Your task to perform on an android device: Clear the shopping cart on newegg. Image 0: 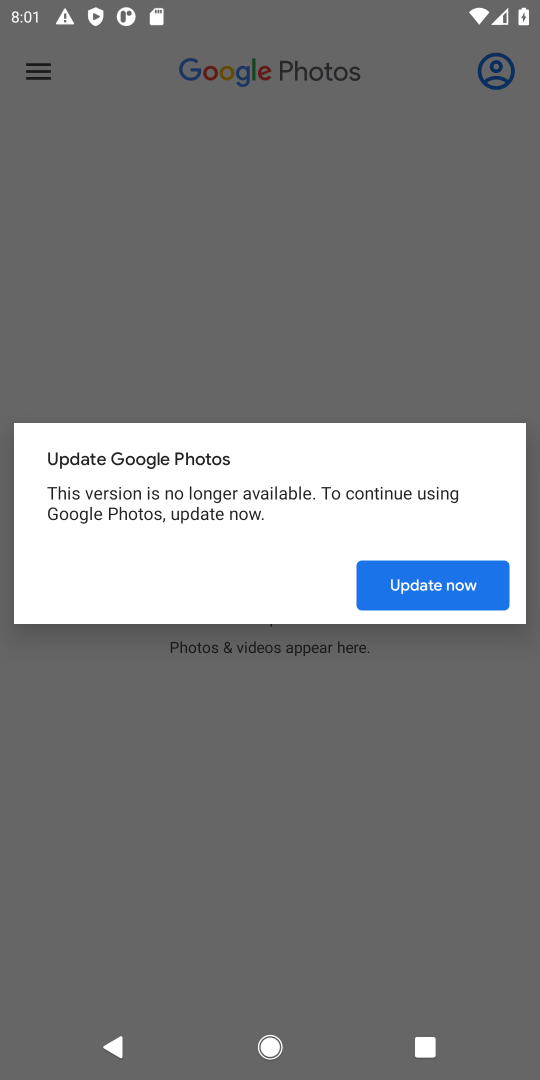
Step 0: press home button
Your task to perform on an android device: Clear the shopping cart on newegg. Image 1: 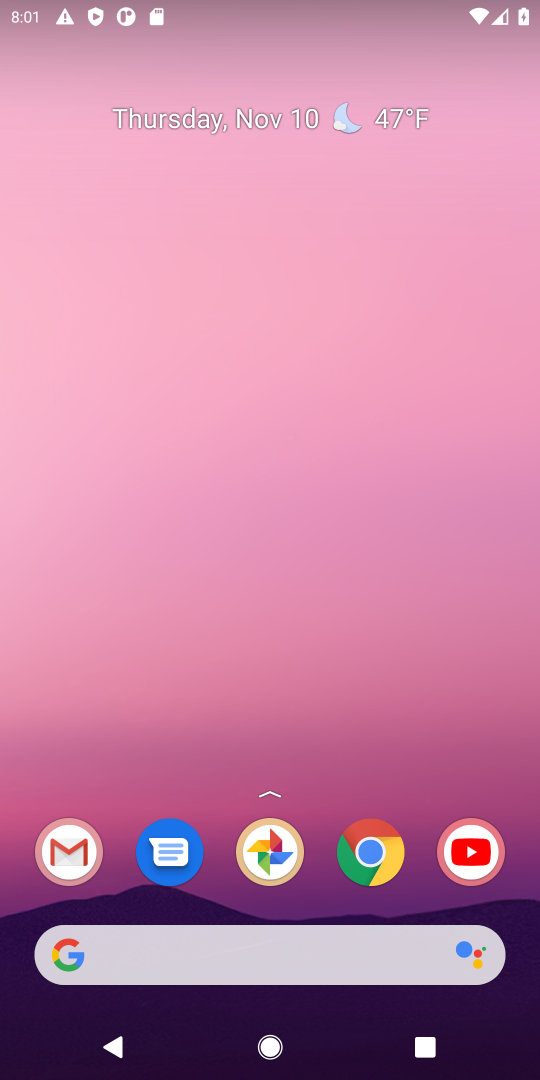
Step 1: click (367, 853)
Your task to perform on an android device: Clear the shopping cart on newegg. Image 2: 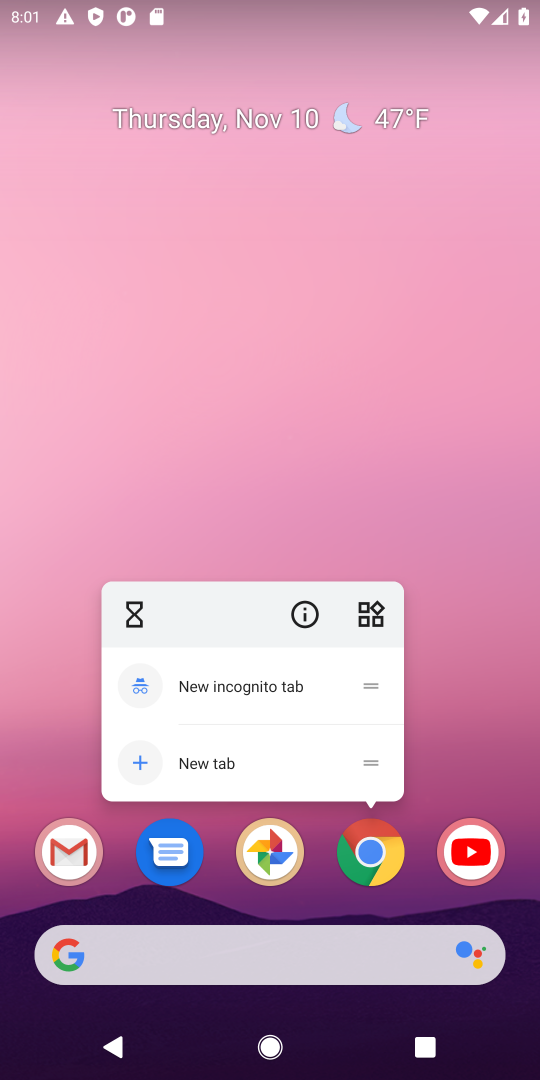
Step 2: click (367, 853)
Your task to perform on an android device: Clear the shopping cart on newegg. Image 3: 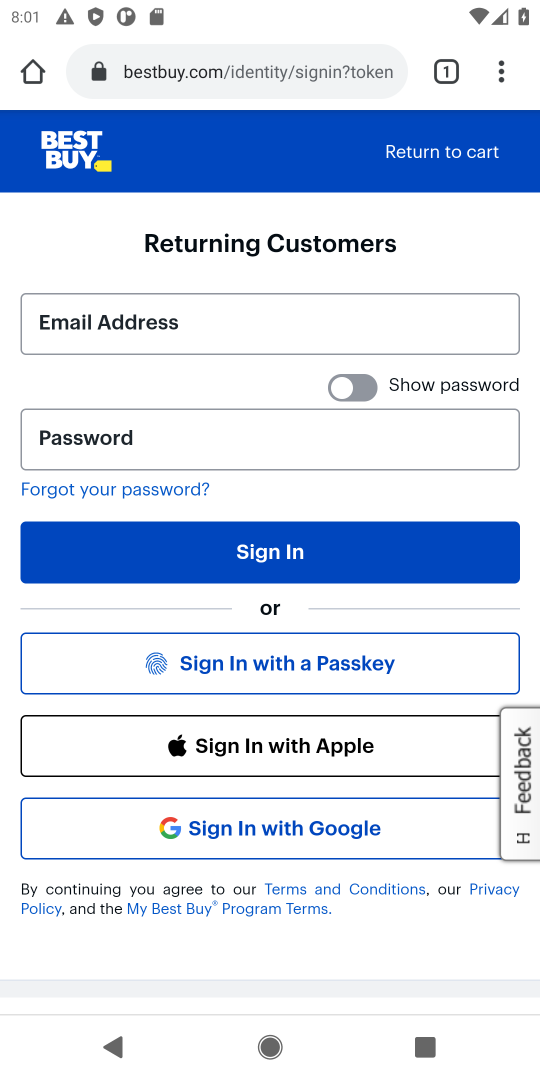
Step 3: click (301, 66)
Your task to perform on an android device: Clear the shopping cart on newegg. Image 4: 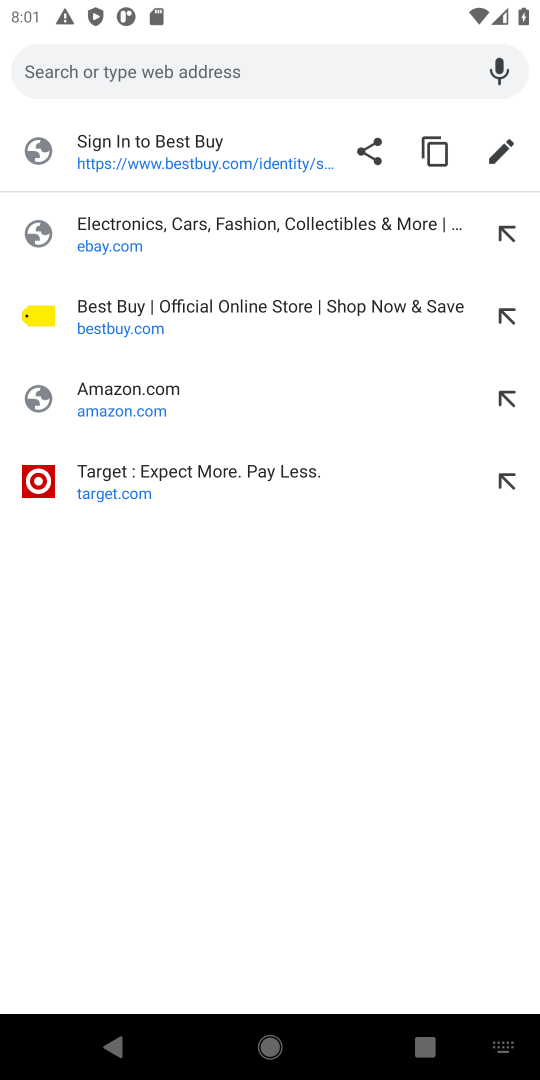
Step 4: type "newegg"
Your task to perform on an android device: Clear the shopping cart on newegg. Image 5: 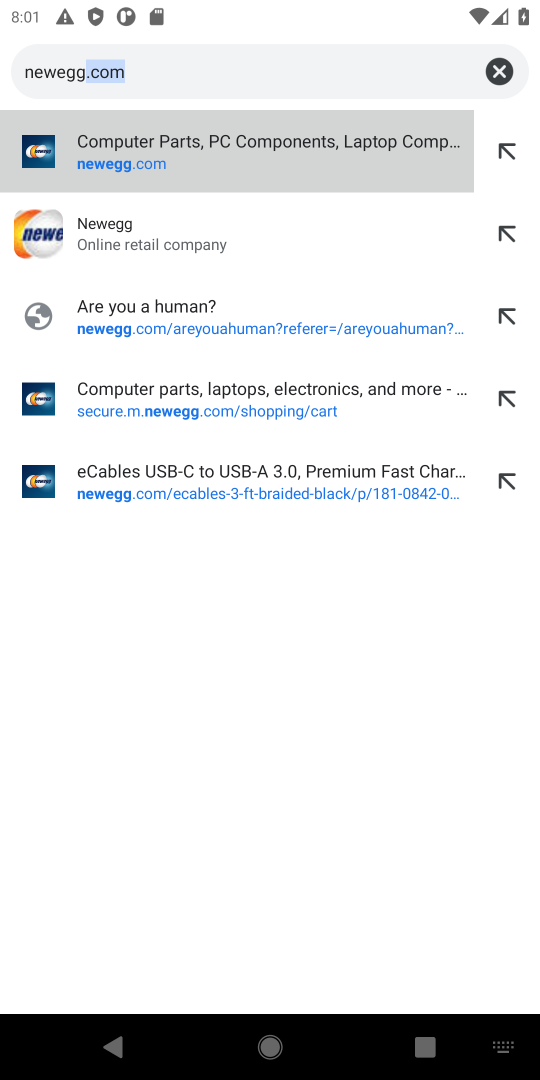
Step 5: press enter
Your task to perform on an android device: Clear the shopping cart on newegg. Image 6: 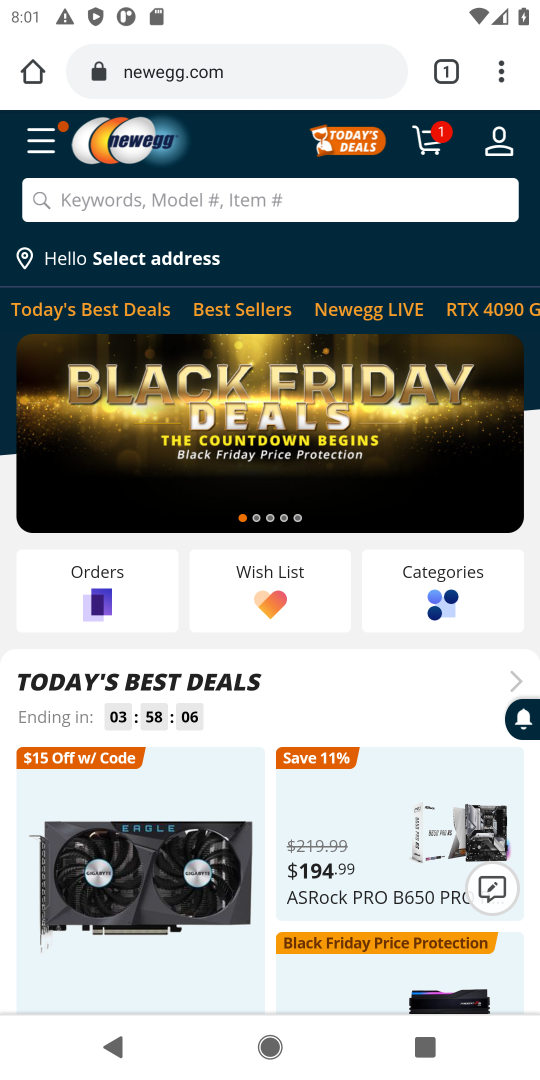
Step 6: click (436, 140)
Your task to perform on an android device: Clear the shopping cart on newegg. Image 7: 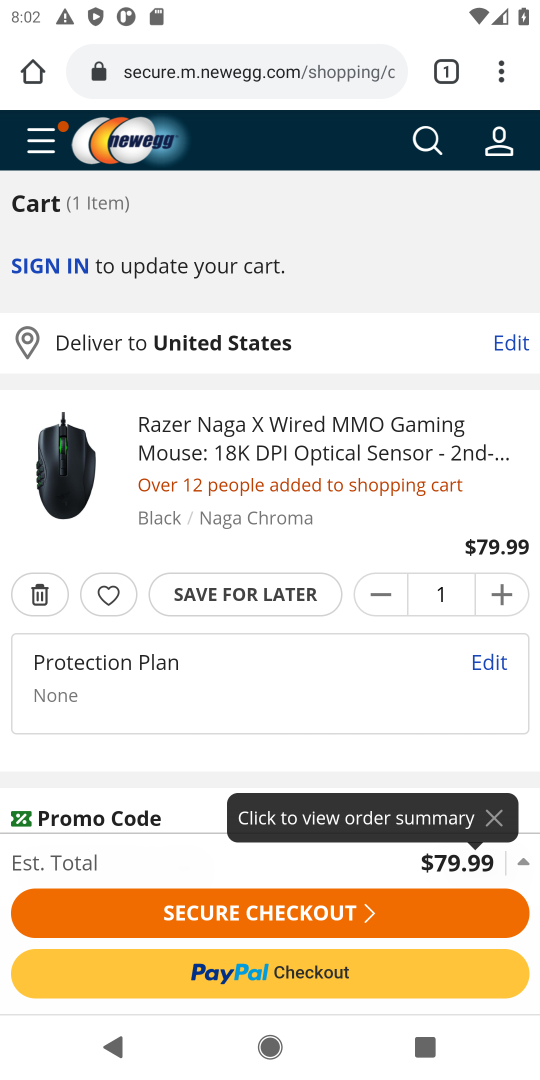
Step 7: click (41, 596)
Your task to perform on an android device: Clear the shopping cart on newegg. Image 8: 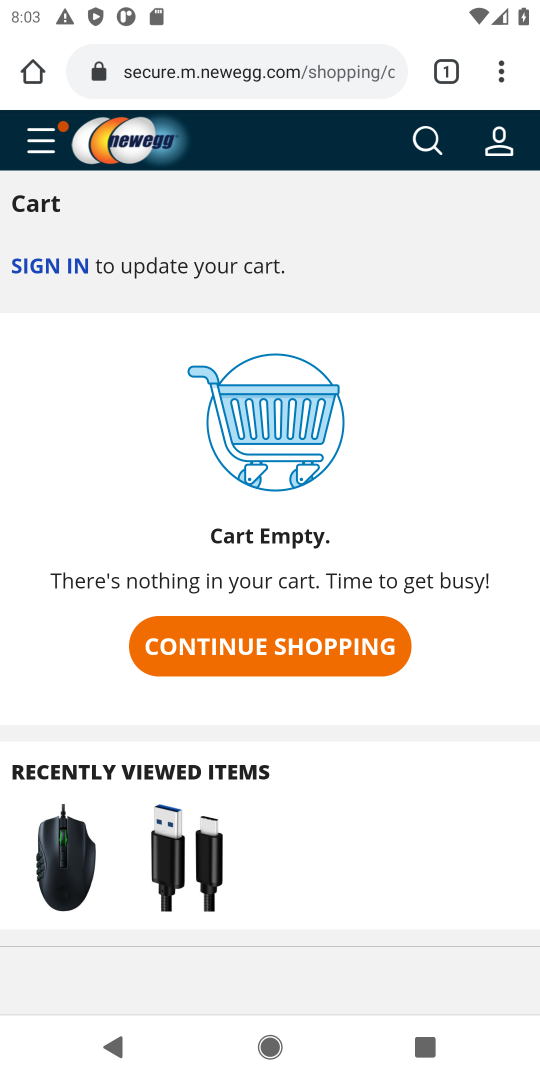
Step 8: task complete